Your task to perform on an android device: See recent photos Image 0: 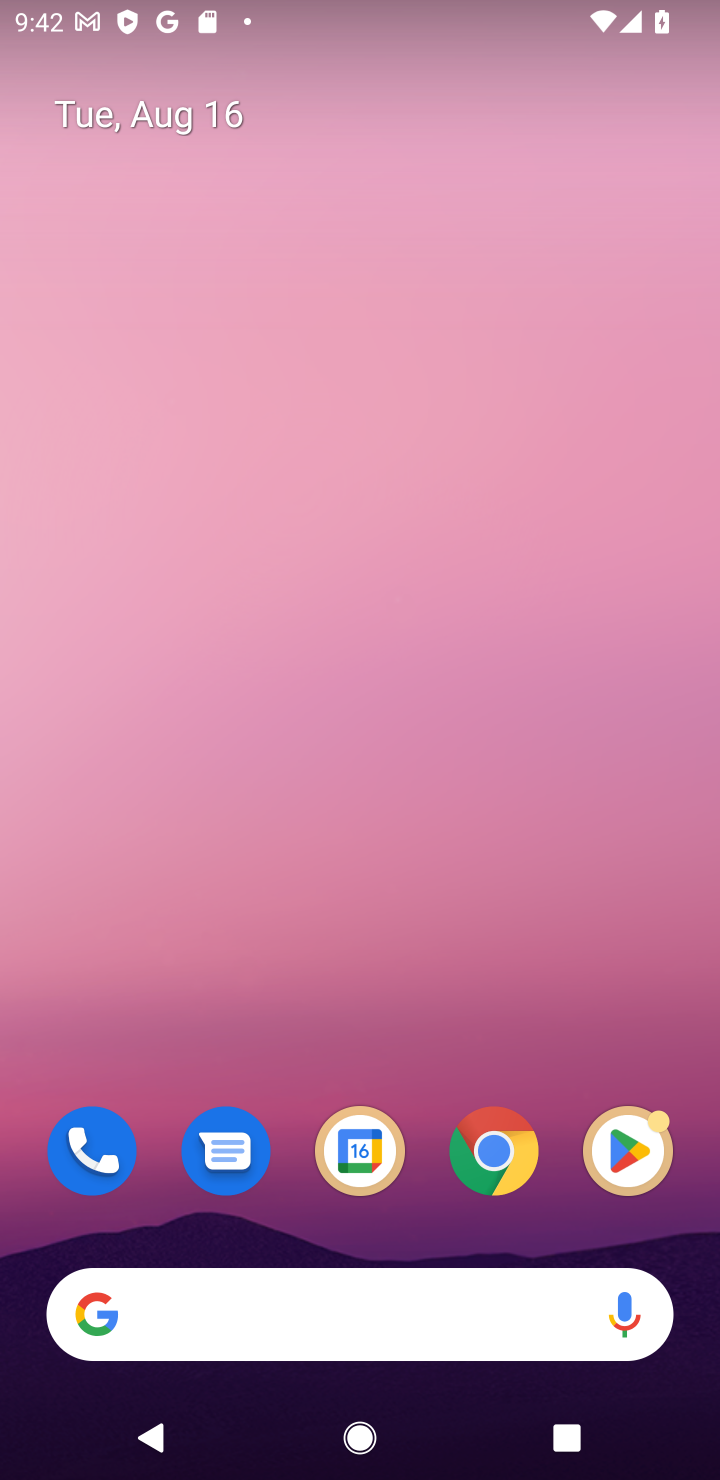
Step 0: drag from (330, 174) to (330, 80)
Your task to perform on an android device: See recent photos Image 1: 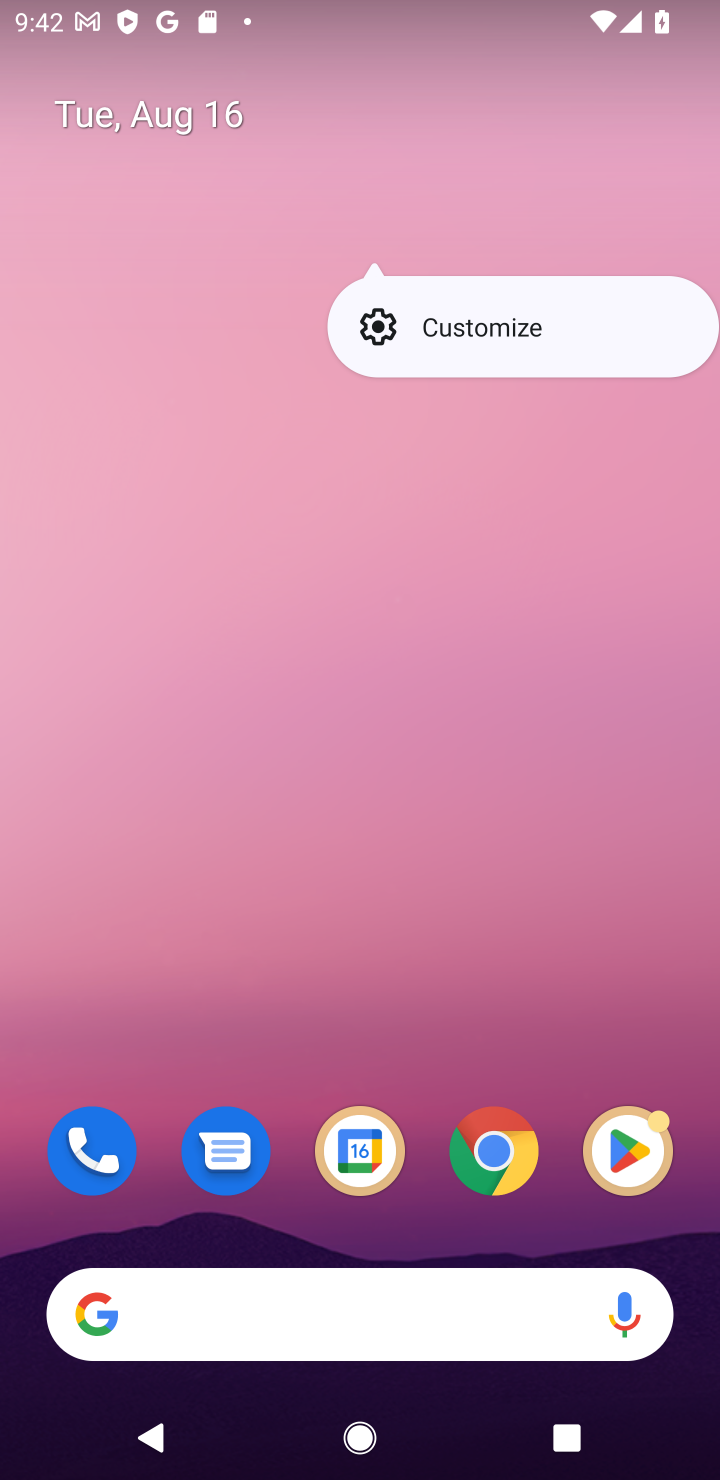
Step 1: drag from (302, 1226) to (408, 522)
Your task to perform on an android device: See recent photos Image 2: 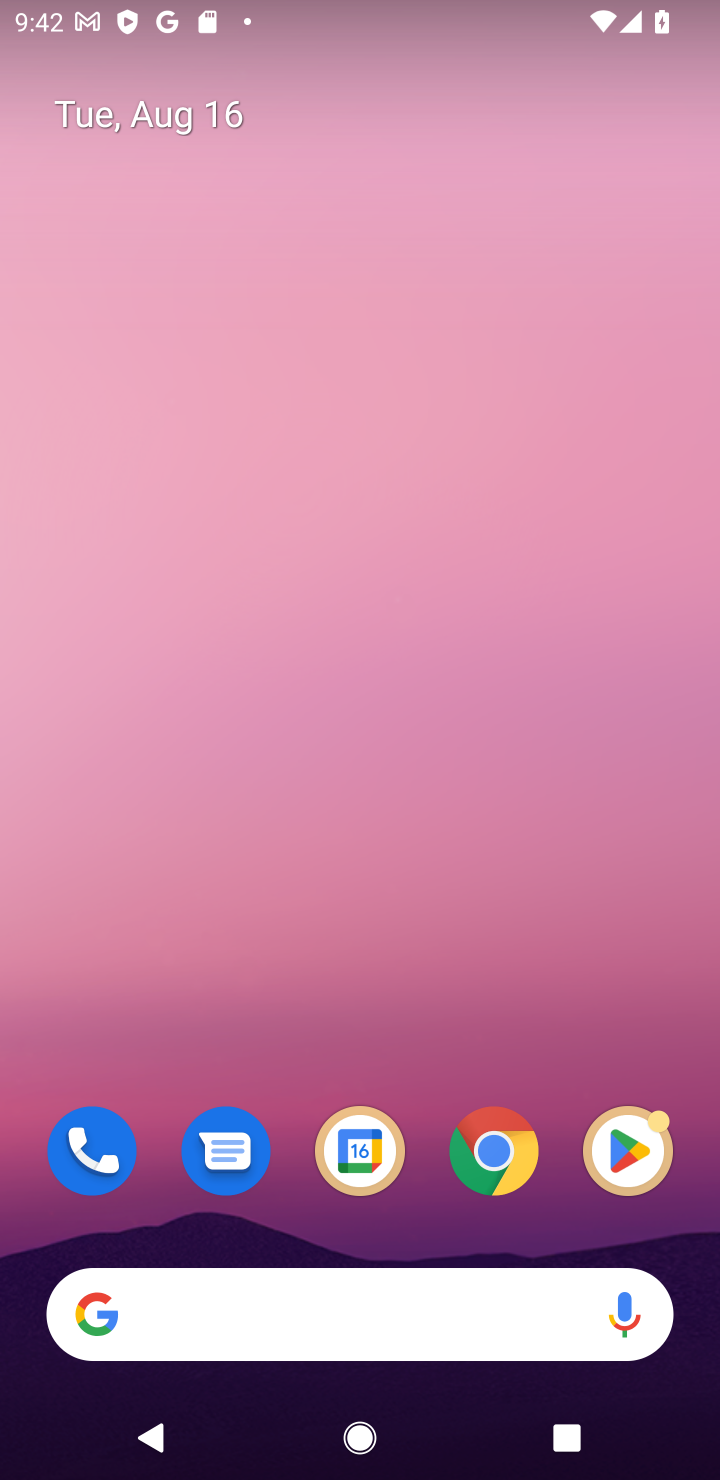
Step 2: drag from (308, 1143) to (386, 23)
Your task to perform on an android device: See recent photos Image 3: 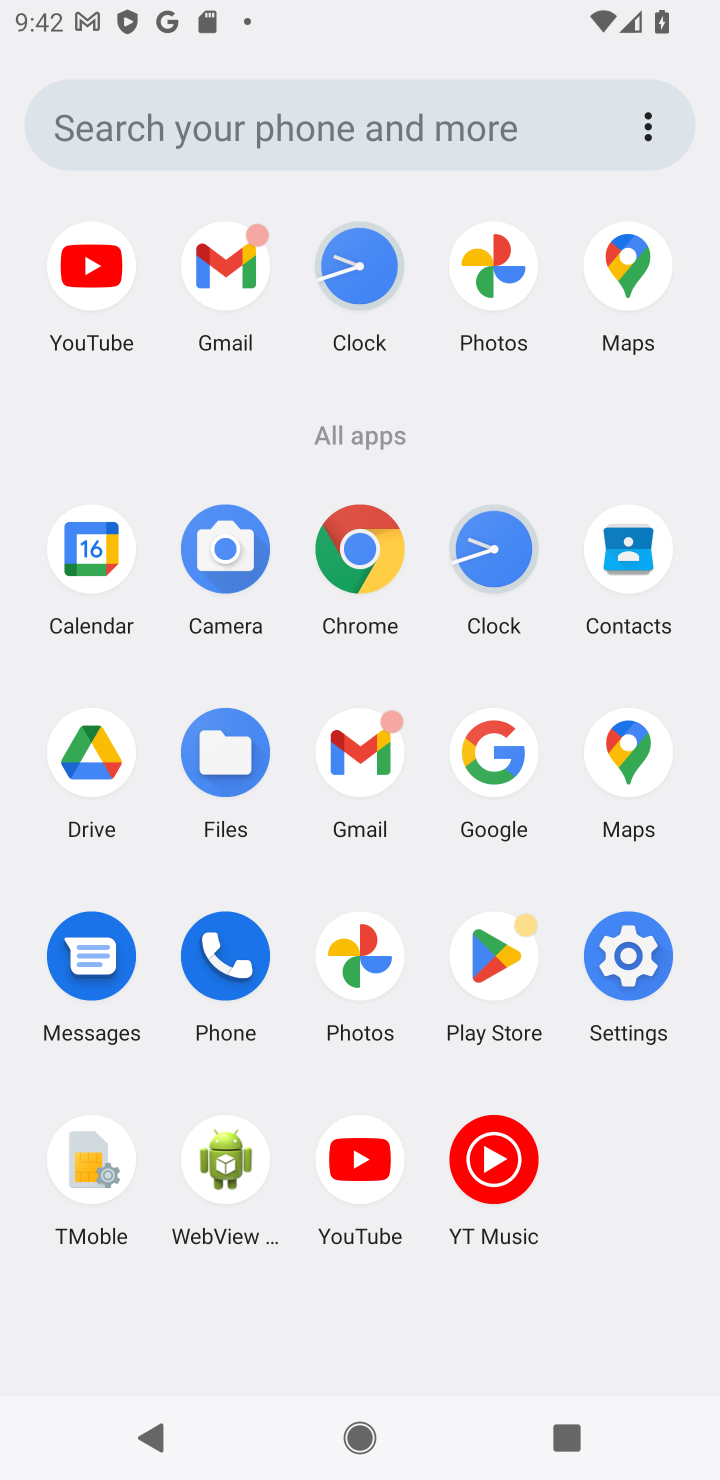
Step 3: click (352, 1009)
Your task to perform on an android device: See recent photos Image 4: 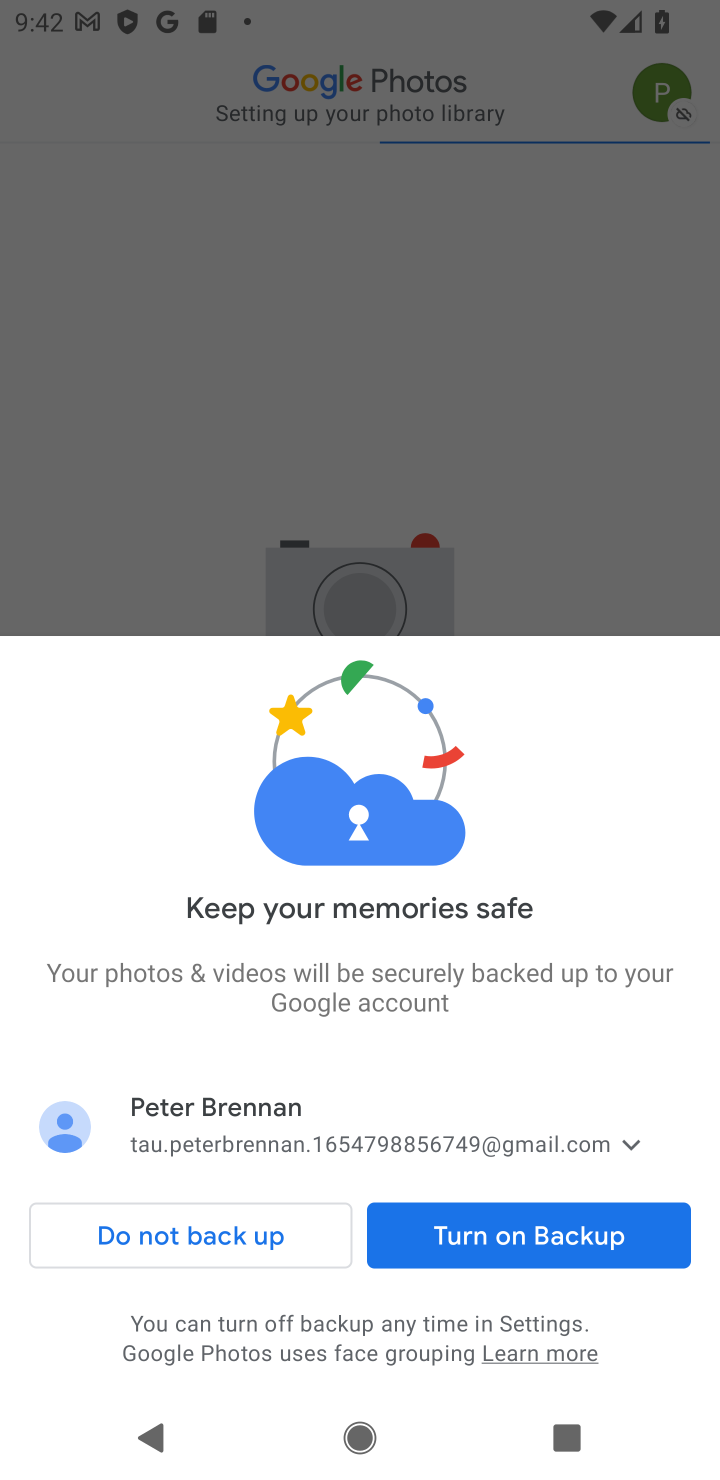
Step 4: click (494, 1299)
Your task to perform on an android device: See recent photos Image 5: 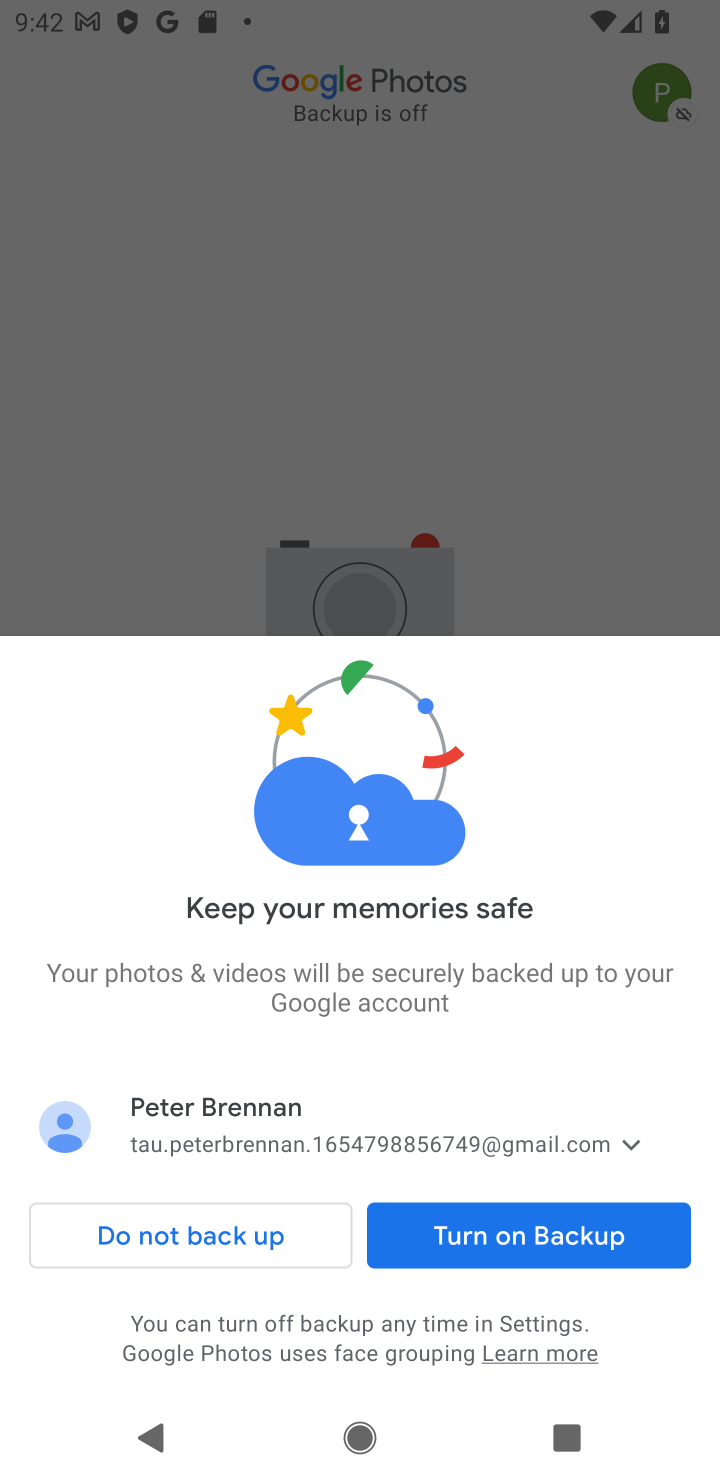
Step 5: click (494, 1234)
Your task to perform on an android device: See recent photos Image 6: 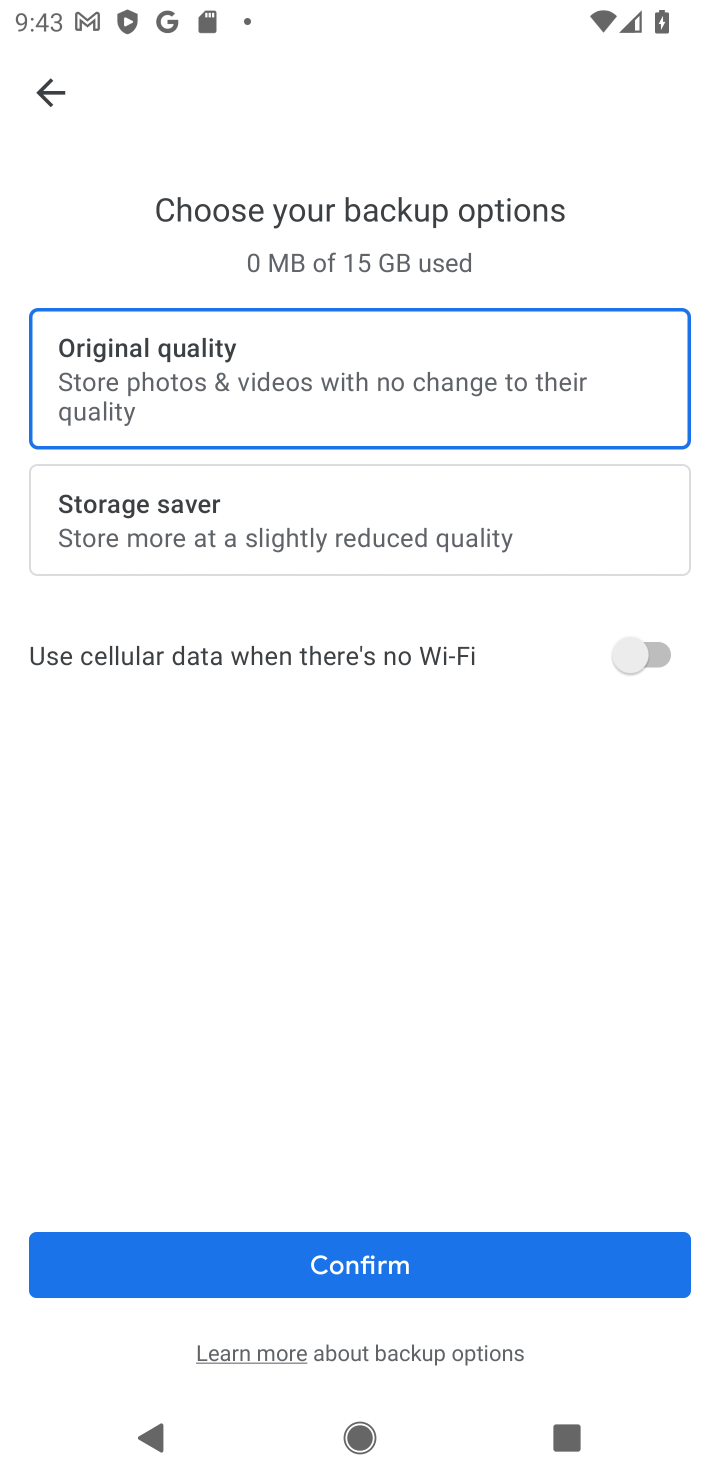
Step 6: click (446, 1243)
Your task to perform on an android device: See recent photos Image 7: 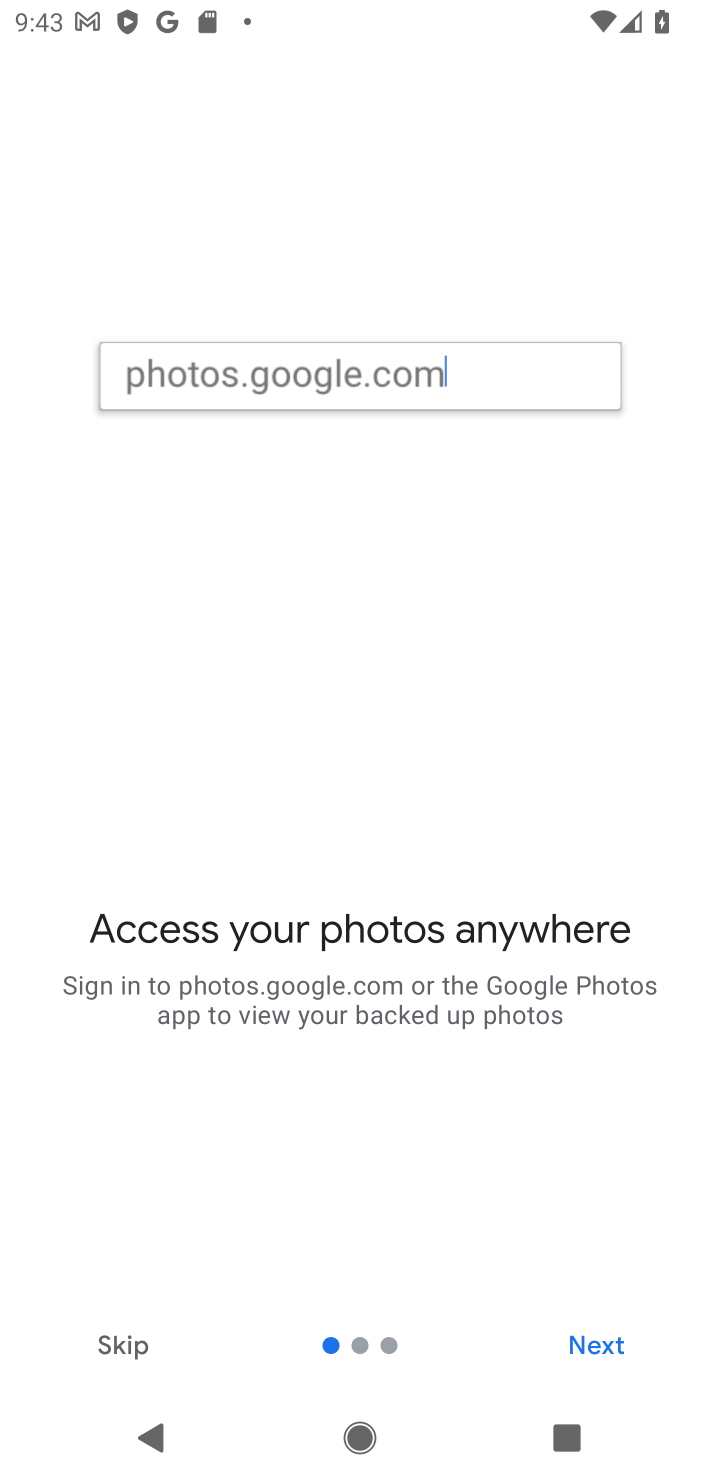
Step 7: click (350, 1266)
Your task to perform on an android device: See recent photos Image 8: 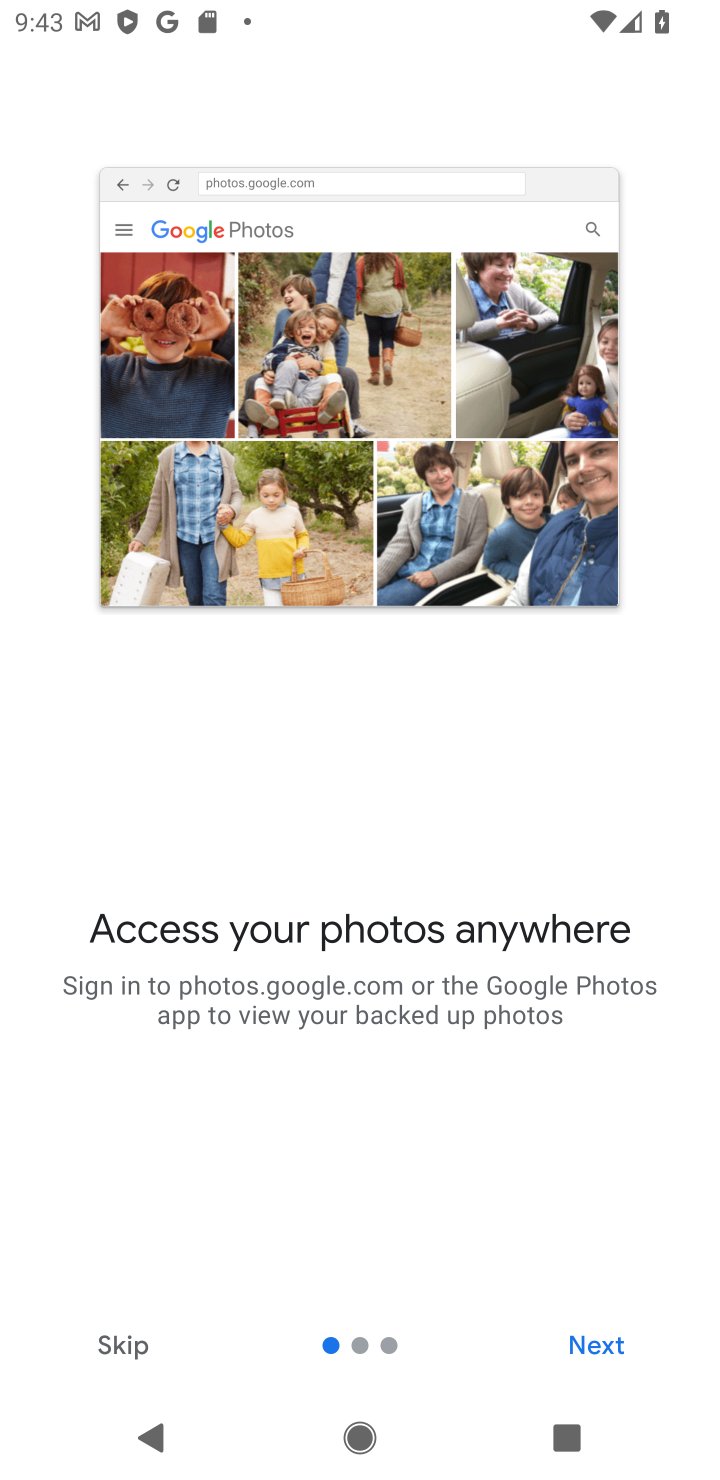
Step 8: click (593, 1348)
Your task to perform on an android device: See recent photos Image 9: 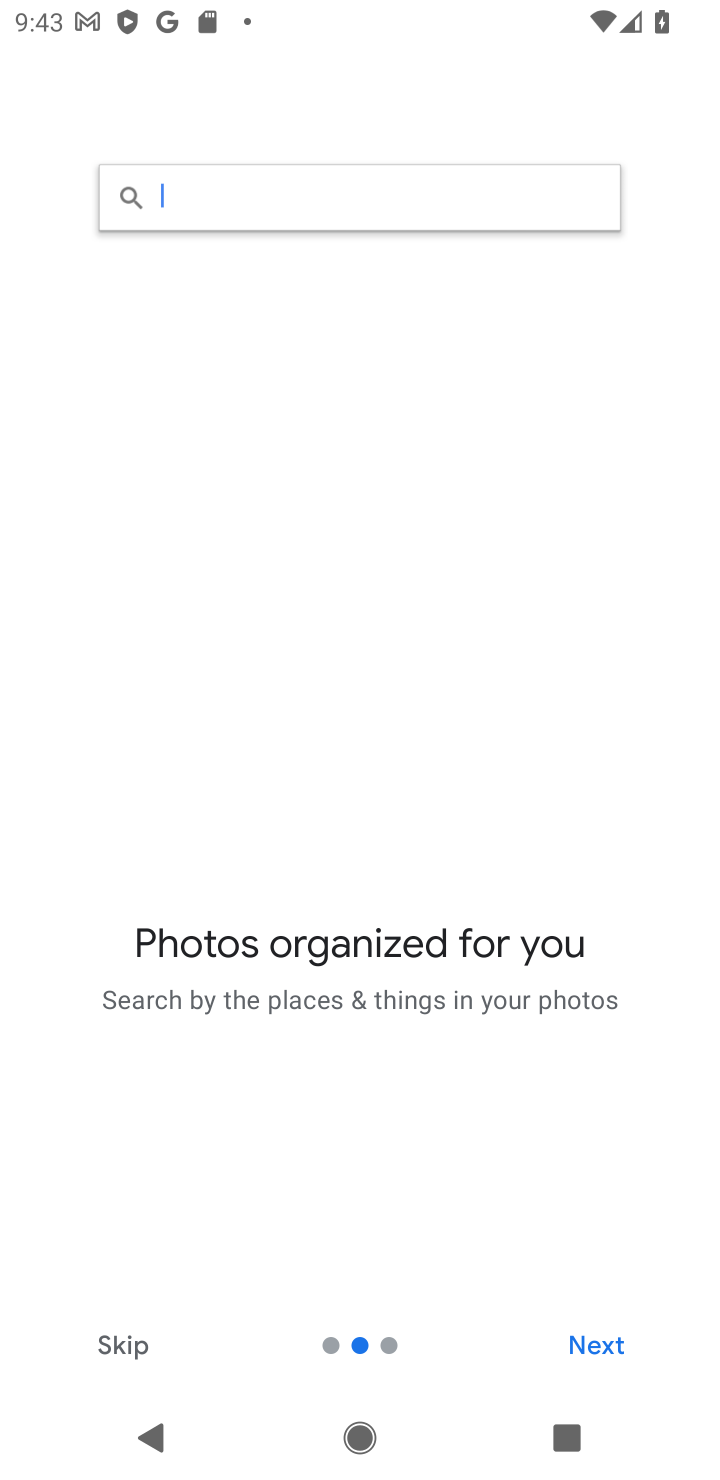
Step 9: click (593, 1348)
Your task to perform on an android device: See recent photos Image 10: 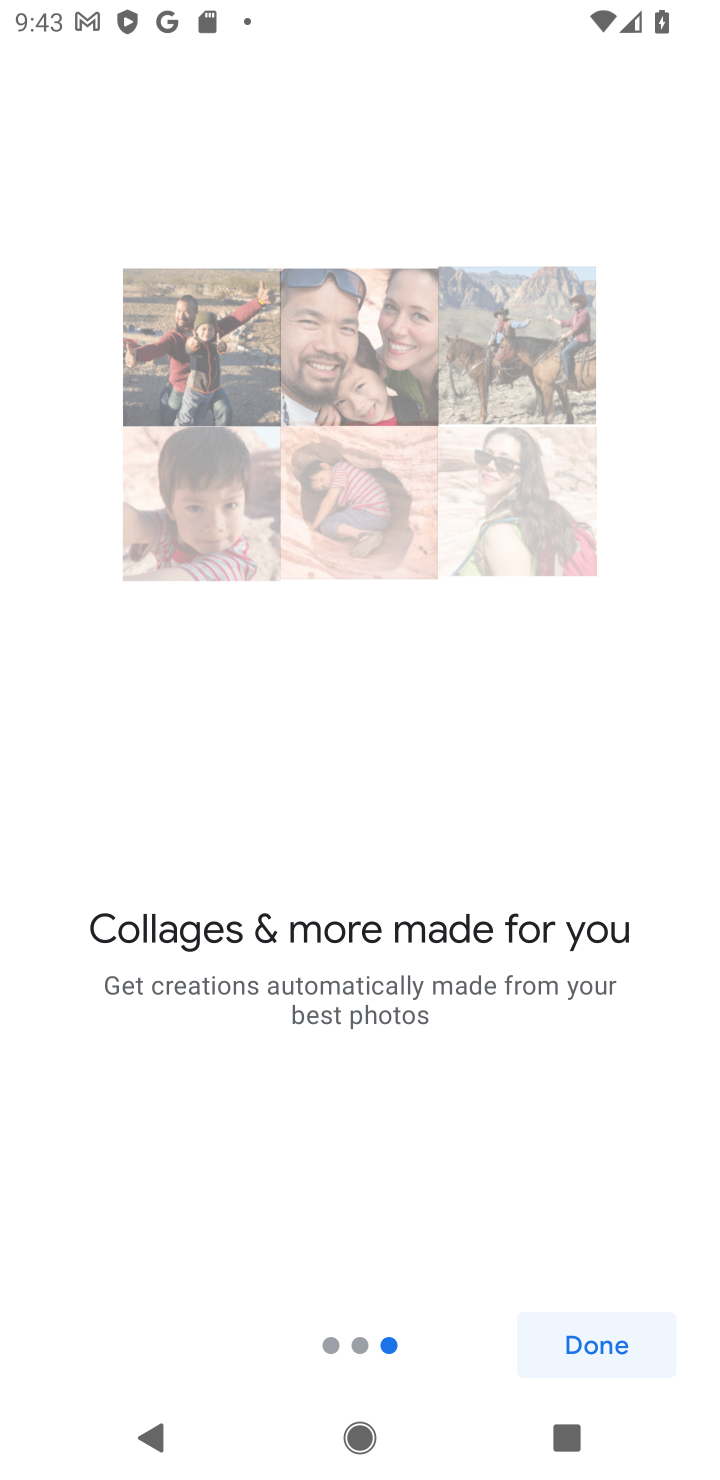
Step 10: click (593, 1348)
Your task to perform on an android device: See recent photos Image 11: 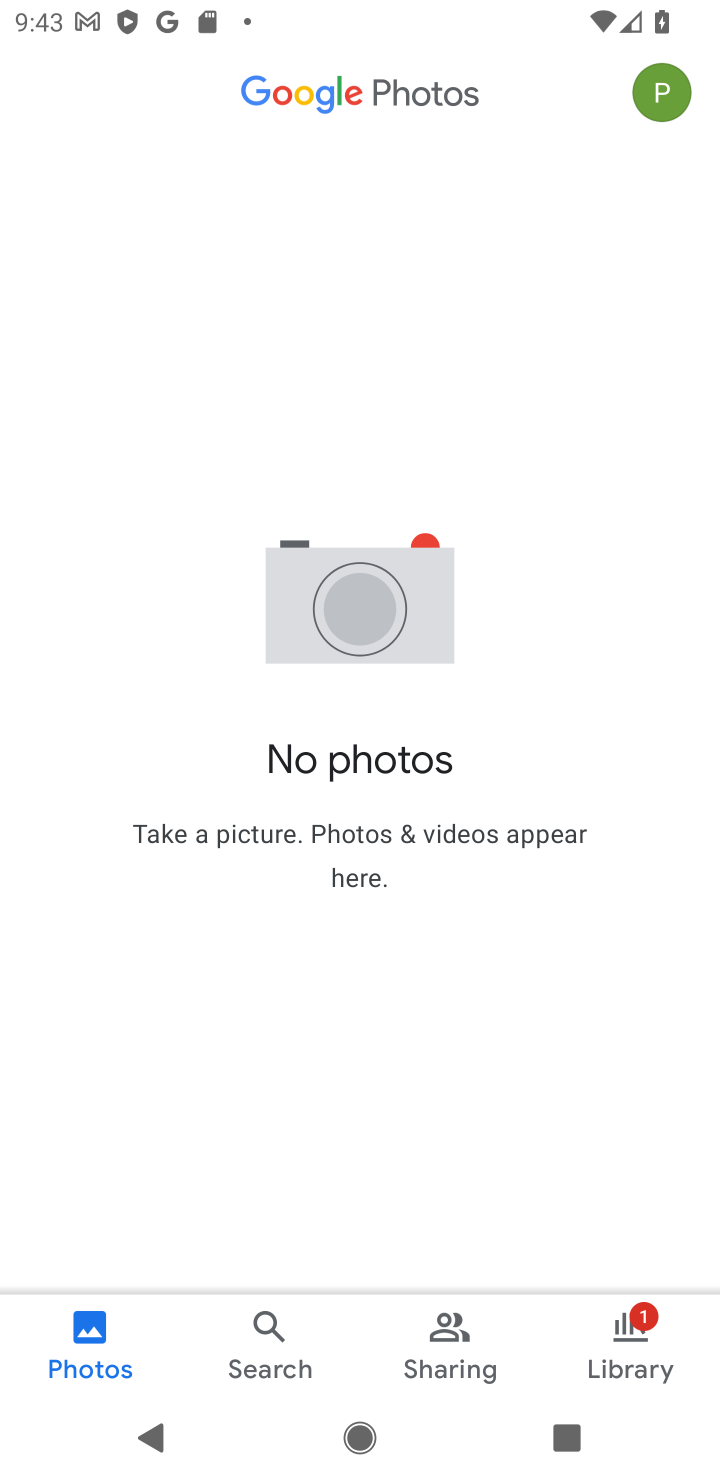
Step 11: task complete